Your task to perform on an android device: toggle translation in the chrome app Image 0: 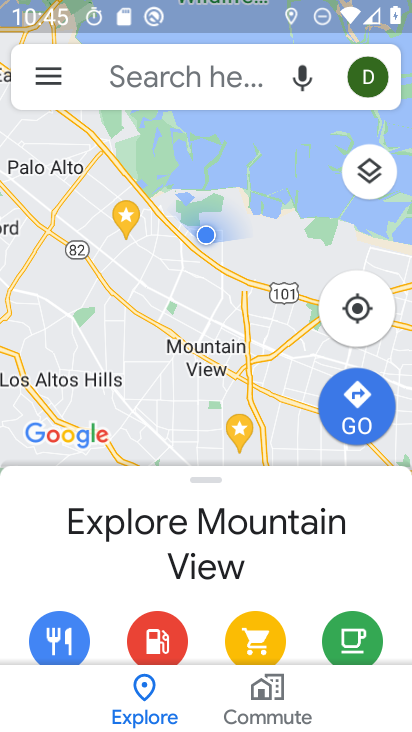
Step 0: click (56, 87)
Your task to perform on an android device: toggle translation in the chrome app Image 1: 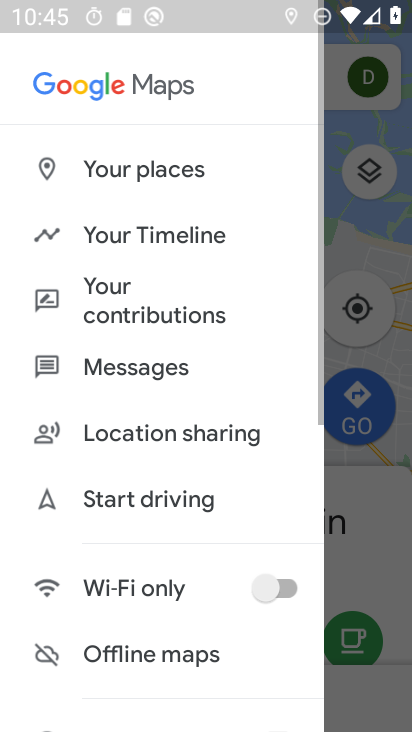
Step 1: click (54, 82)
Your task to perform on an android device: toggle translation in the chrome app Image 2: 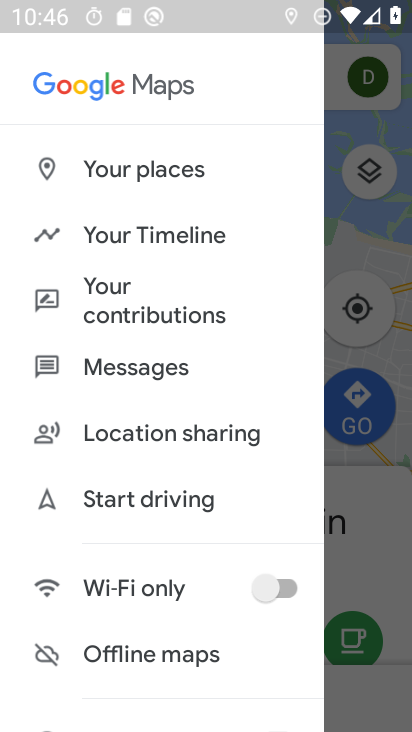
Step 2: drag from (185, 520) to (151, 177)
Your task to perform on an android device: toggle translation in the chrome app Image 3: 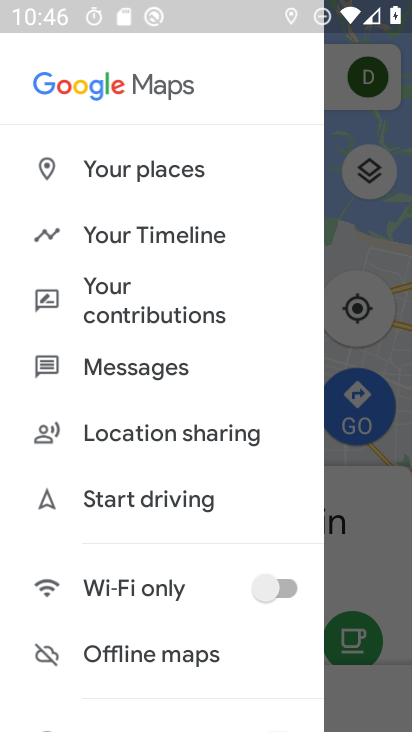
Step 3: drag from (155, 183) to (212, 445)
Your task to perform on an android device: toggle translation in the chrome app Image 4: 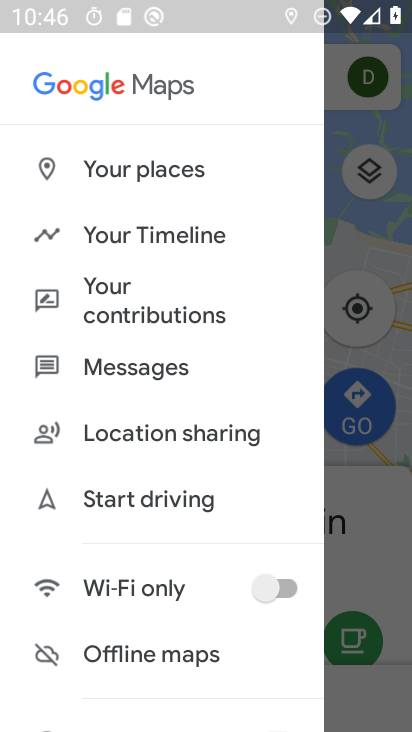
Step 4: drag from (161, 608) to (96, 164)
Your task to perform on an android device: toggle translation in the chrome app Image 5: 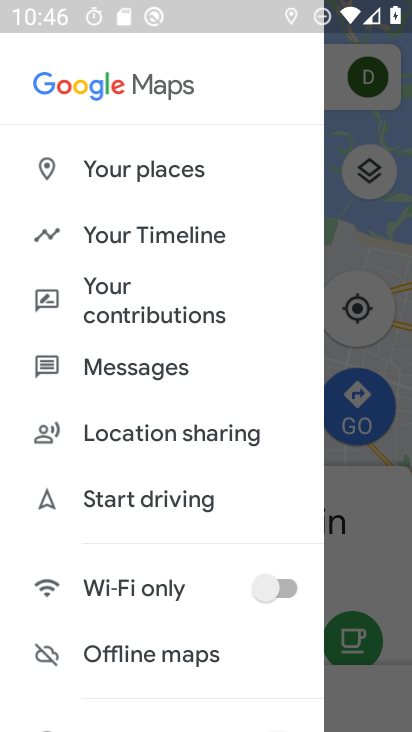
Step 5: drag from (163, 595) to (106, 138)
Your task to perform on an android device: toggle translation in the chrome app Image 6: 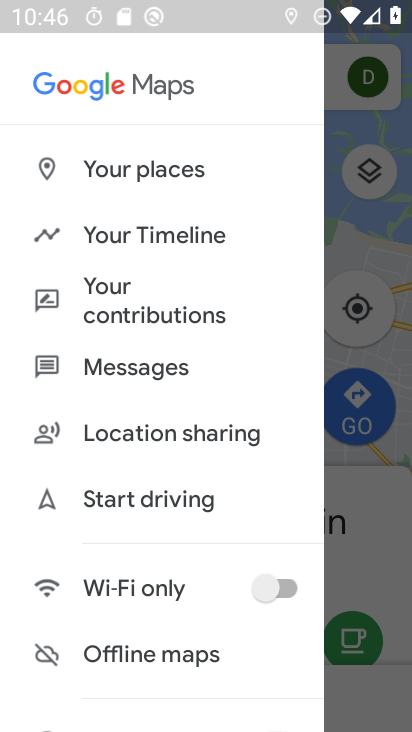
Step 6: drag from (128, 181) to (168, 589)
Your task to perform on an android device: toggle translation in the chrome app Image 7: 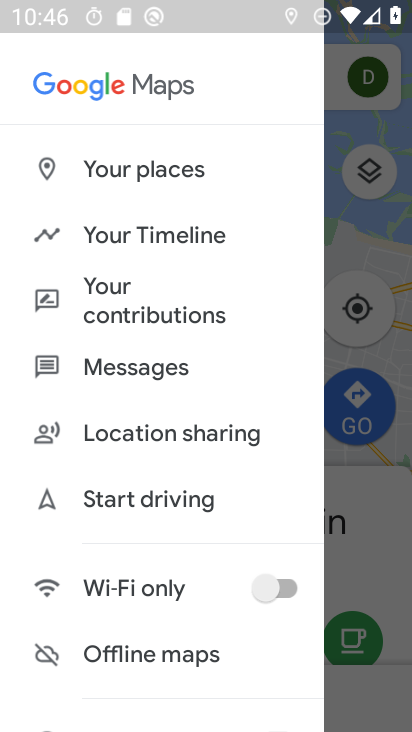
Step 7: press back button
Your task to perform on an android device: toggle translation in the chrome app Image 8: 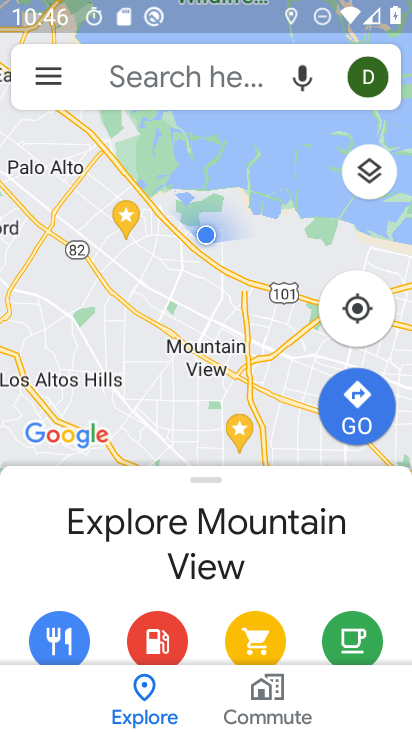
Step 8: click (24, 89)
Your task to perform on an android device: toggle translation in the chrome app Image 9: 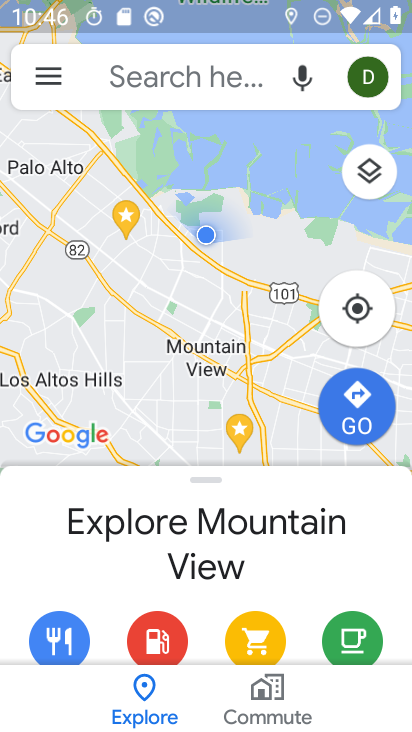
Step 9: click (39, 73)
Your task to perform on an android device: toggle translation in the chrome app Image 10: 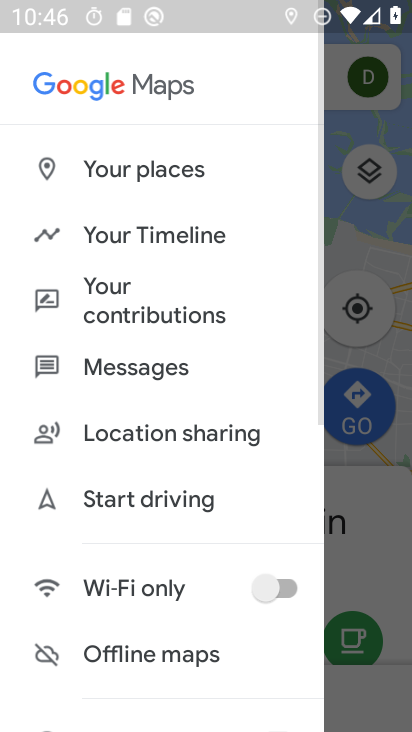
Step 10: task complete